Your task to perform on an android device: turn off sleep mode Image 0: 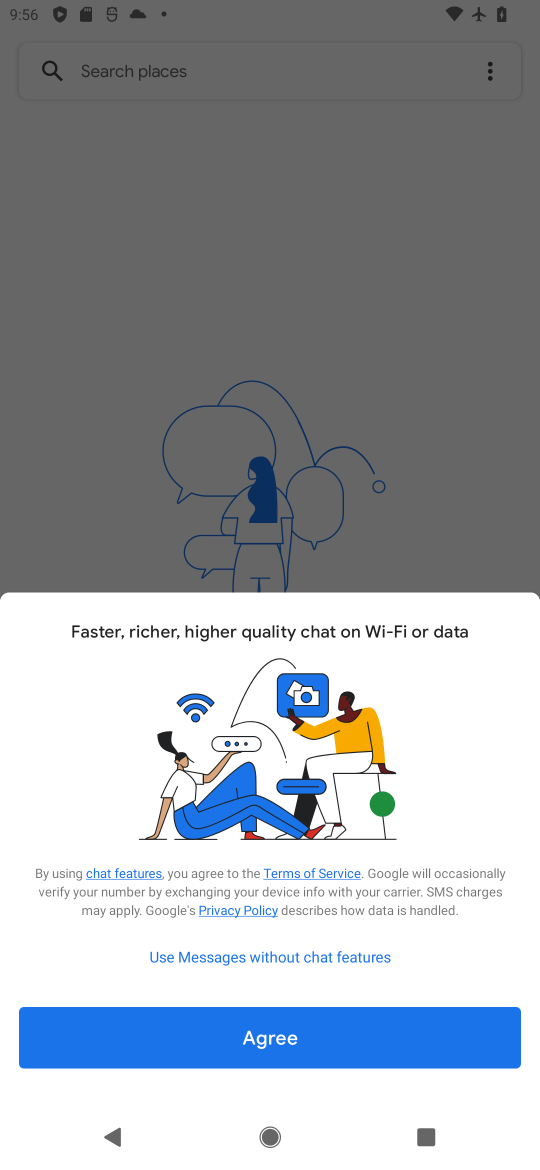
Step 0: press home button
Your task to perform on an android device: turn off sleep mode Image 1: 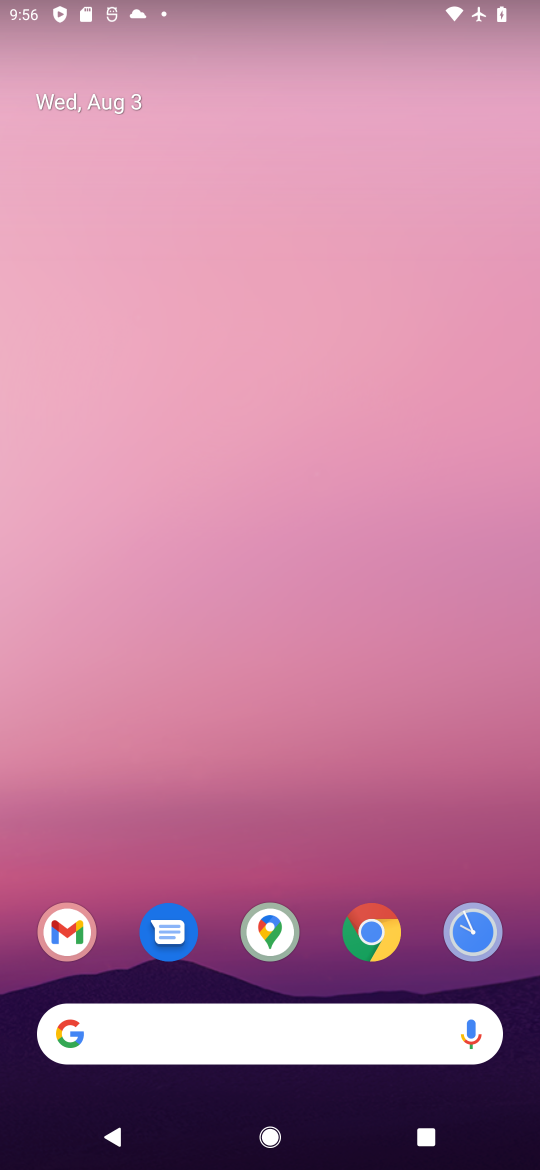
Step 1: drag from (343, 862) to (289, 128)
Your task to perform on an android device: turn off sleep mode Image 2: 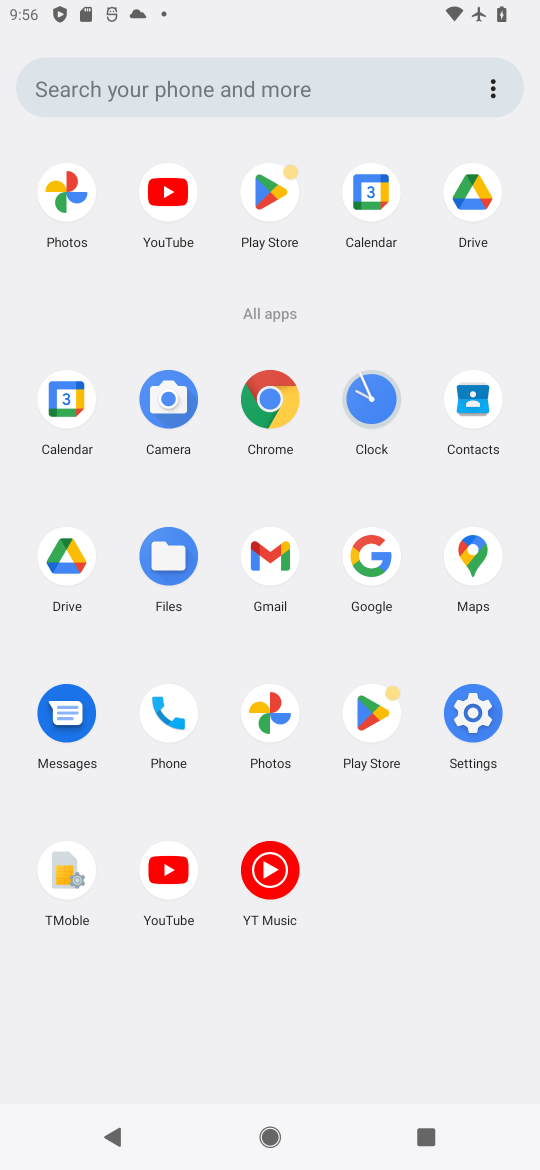
Step 2: click (469, 742)
Your task to perform on an android device: turn off sleep mode Image 3: 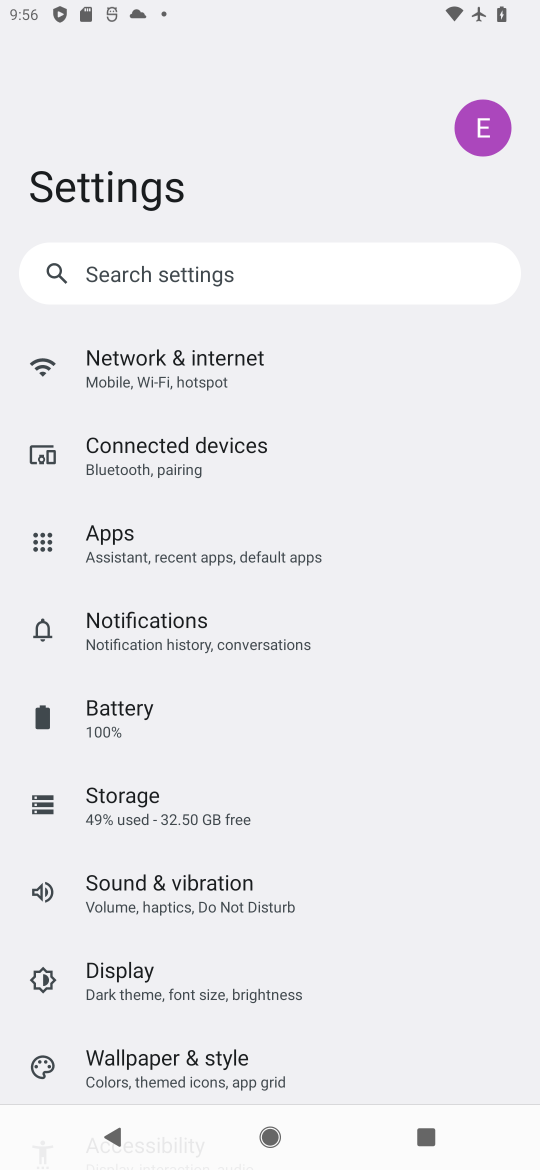
Step 3: click (306, 975)
Your task to perform on an android device: turn off sleep mode Image 4: 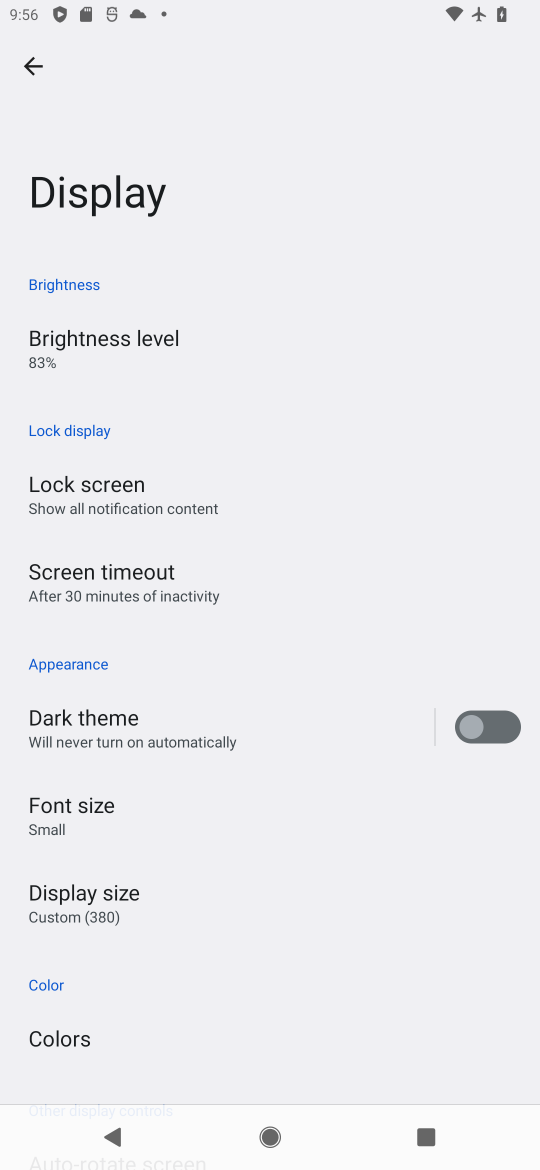
Step 4: task complete